Your task to perform on an android device: Open Chrome and go to settings Image 0: 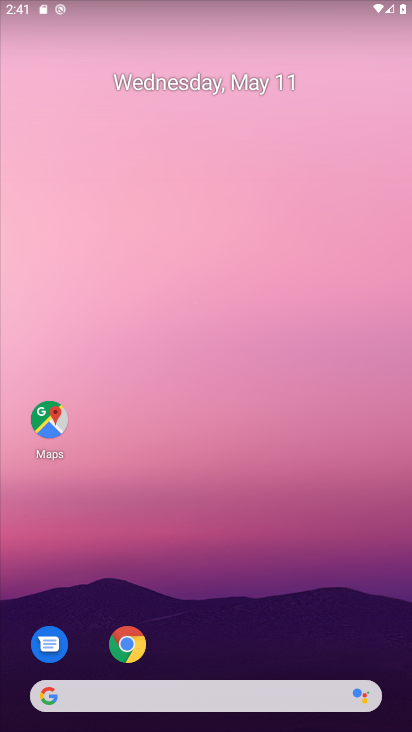
Step 0: drag from (221, 663) to (135, 26)
Your task to perform on an android device: Open Chrome and go to settings Image 1: 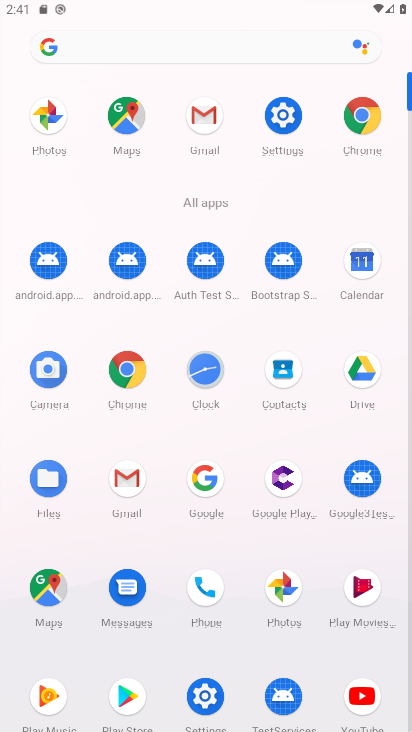
Step 1: click (362, 115)
Your task to perform on an android device: Open Chrome and go to settings Image 2: 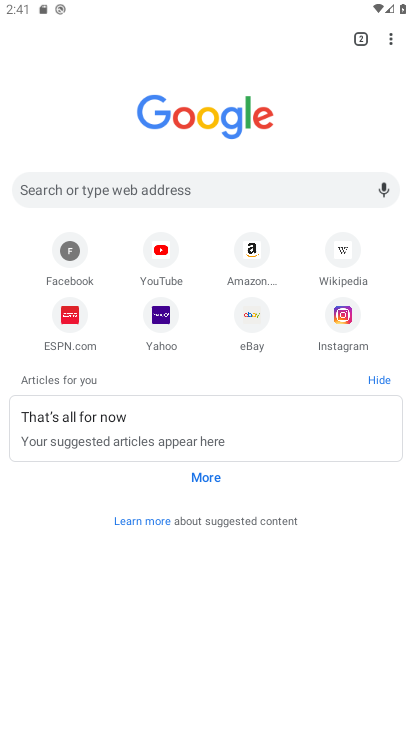
Step 2: click (389, 45)
Your task to perform on an android device: Open Chrome and go to settings Image 3: 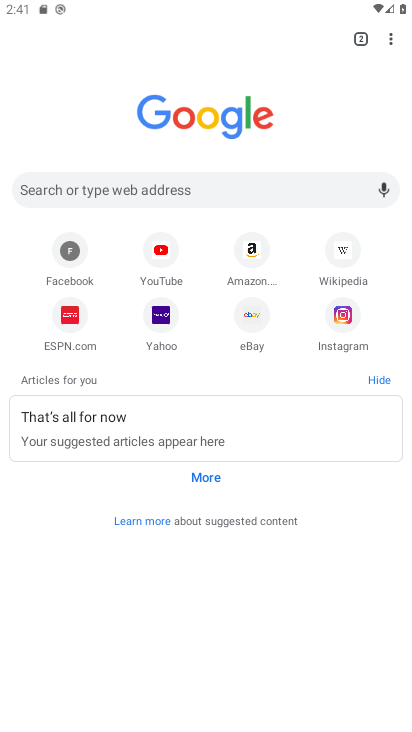
Step 3: task complete